Your task to perform on an android device: change your default location settings in chrome Image 0: 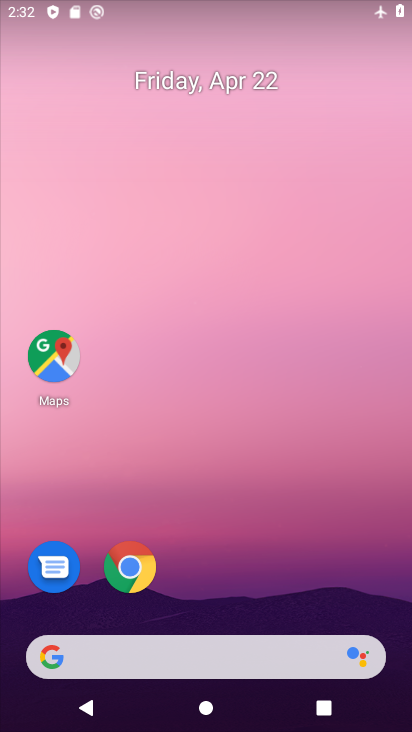
Step 0: click (236, 147)
Your task to perform on an android device: change your default location settings in chrome Image 1: 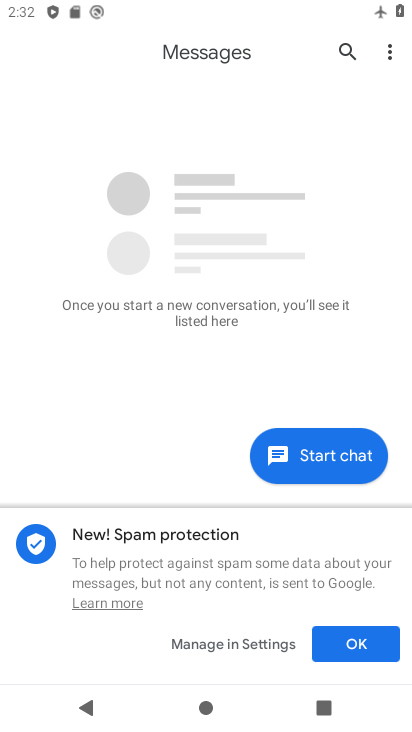
Step 1: press home button
Your task to perform on an android device: change your default location settings in chrome Image 2: 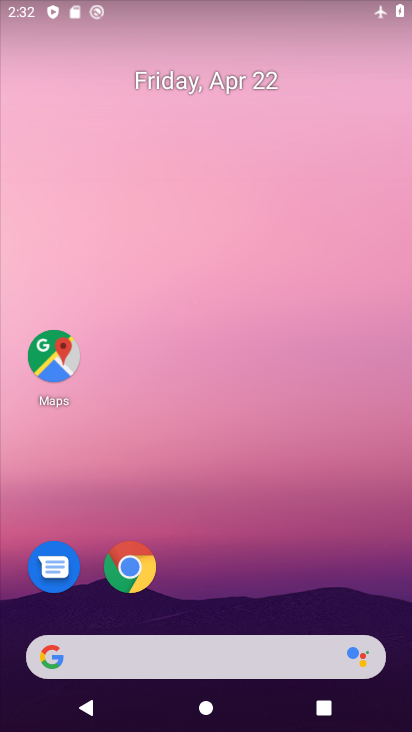
Step 2: drag from (284, 371) to (240, 88)
Your task to perform on an android device: change your default location settings in chrome Image 3: 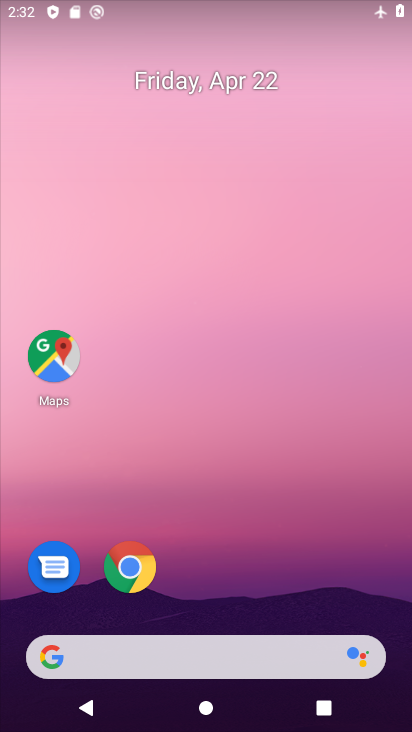
Step 3: drag from (229, 527) to (171, 354)
Your task to perform on an android device: change your default location settings in chrome Image 4: 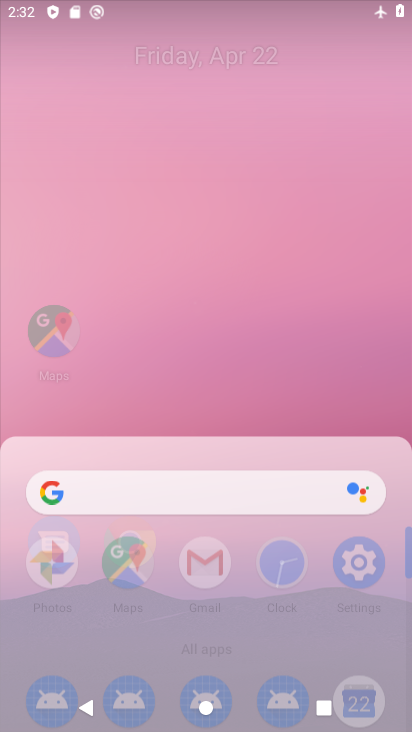
Step 4: drag from (200, 477) to (158, 298)
Your task to perform on an android device: change your default location settings in chrome Image 5: 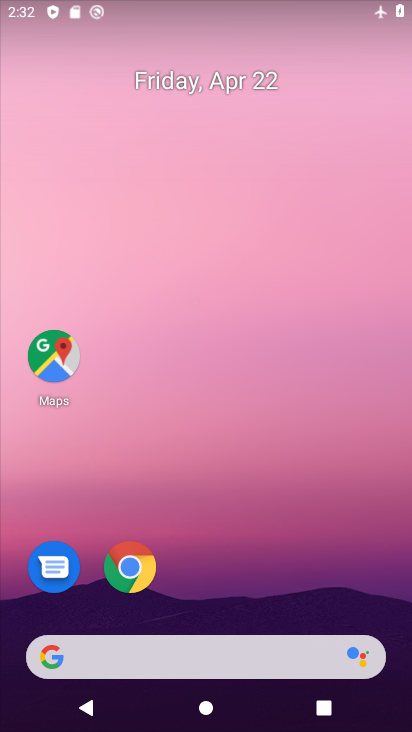
Step 5: drag from (218, 485) to (195, 295)
Your task to perform on an android device: change your default location settings in chrome Image 6: 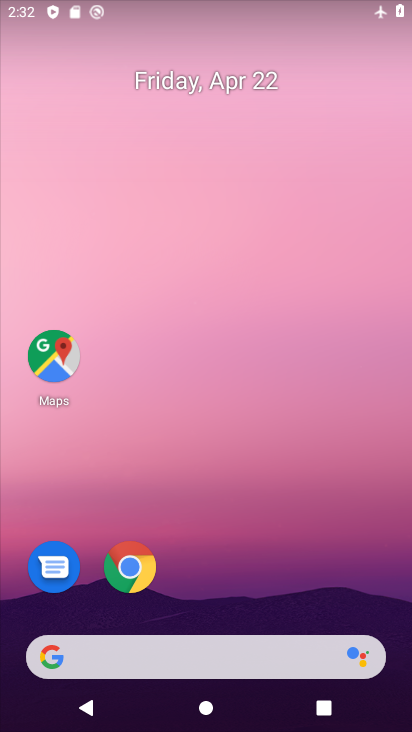
Step 6: drag from (234, 459) to (190, 244)
Your task to perform on an android device: change your default location settings in chrome Image 7: 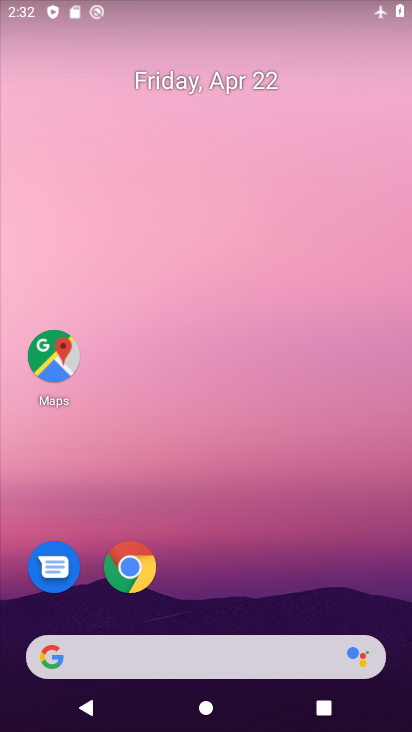
Step 7: drag from (209, 546) to (186, 145)
Your task to perform on an android device: change your default location settings in chrome Image 8: 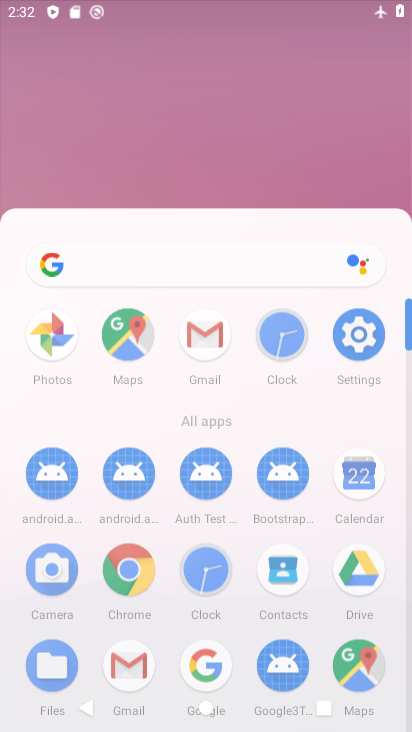
Step 8: drag from (214, 590) to (144, 142)
Your task to perform on an android device: change your default location settings in chrome Image 9: 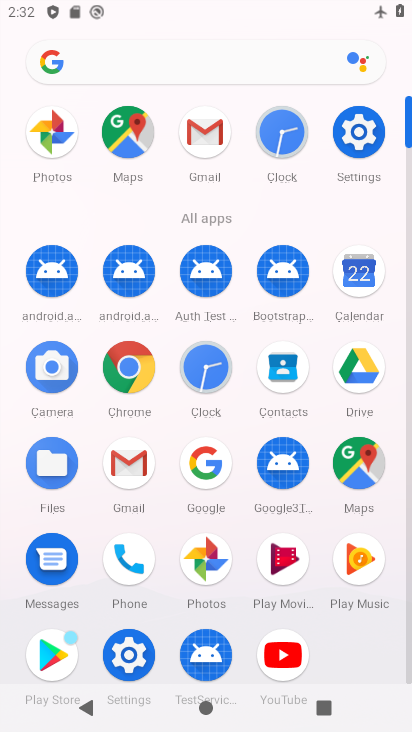
Step 9: drag from (198, 578) to (138, 153)
Your task to perform on an android device: change your default location settings in chrome Image 10: 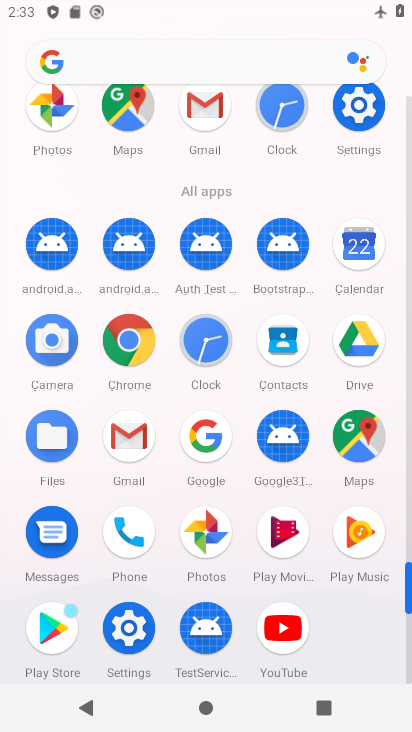
Step 10: click (361, 114)
Your task to perform on an android device: change your default location settings in chrome Image 11: 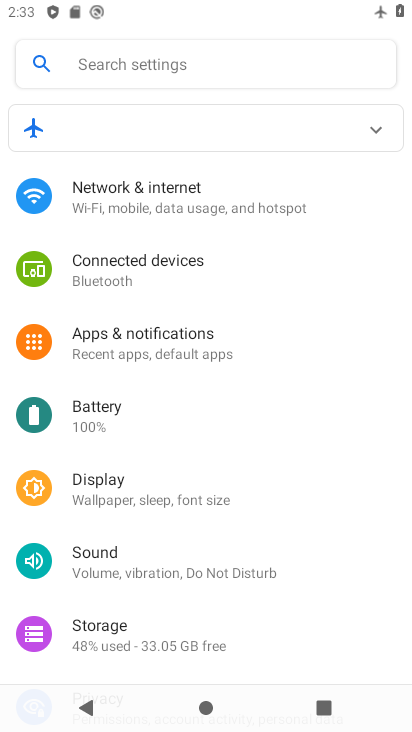
Step 11: click (361, 114)
Your task to perform on an android device: change your default location settings in chrome Image 12: 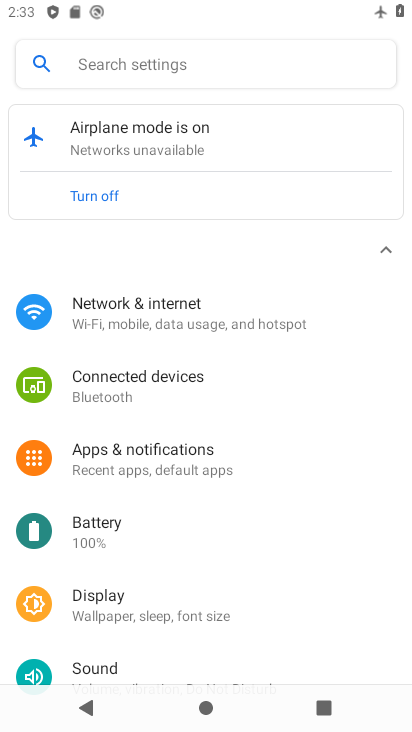
Step 12: press home button
Your task to perform on an android device: change your default location settings in chrome Image 13: 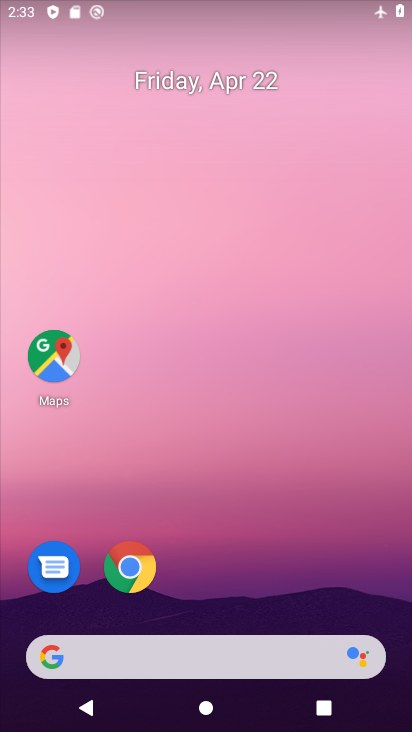
Step 13: drag from (266, 557) to (242, 21)
Your task to perform on an android device: change your default location settings in chrome Image 14: 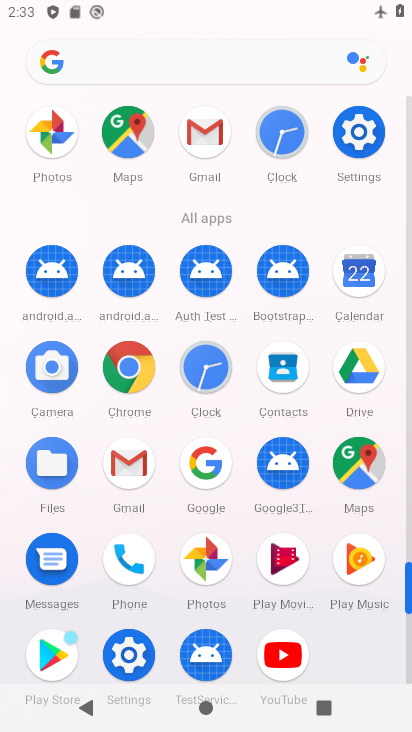
Step 14: click (211, 469)
Your task to perform on an android device: change your default location settings in chrome Image 15: 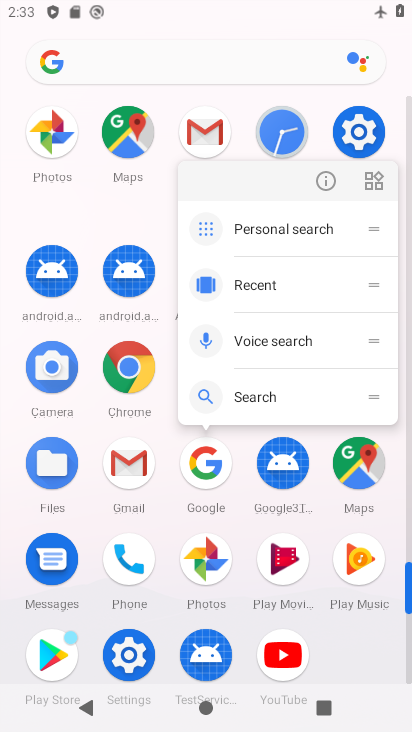
Step 15: click (210, 470)
Your task to perform on an android device: change your default location settings in chrome Image 16: 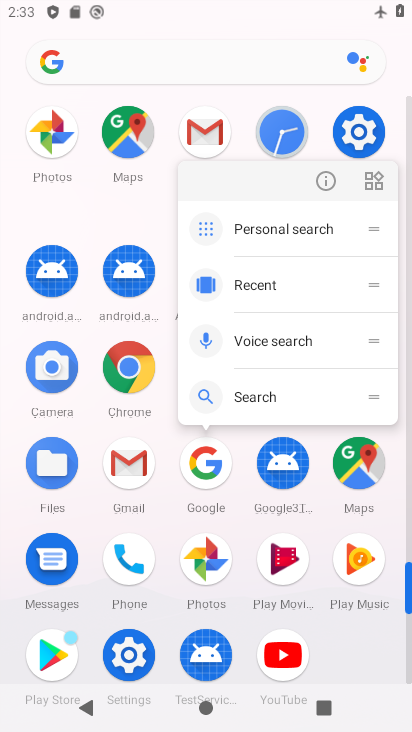
Step 16: click (125, 370)
Your task to perform on an android device: change your default location settings in chrome Image 17: 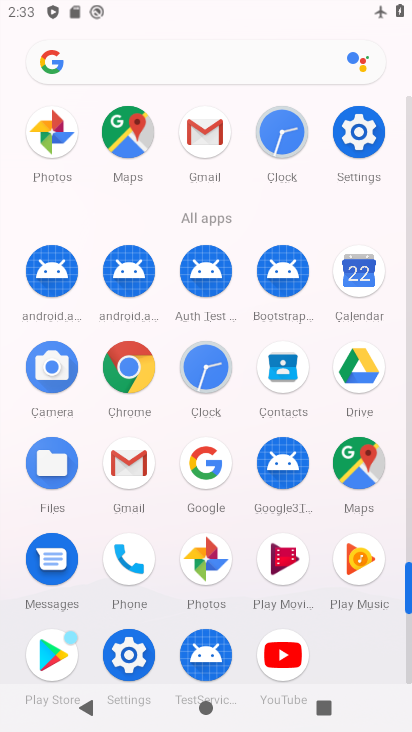
Step 17: click (125, 370)
Your task to perform on an android device: change your default location settings in chrome Image 18: 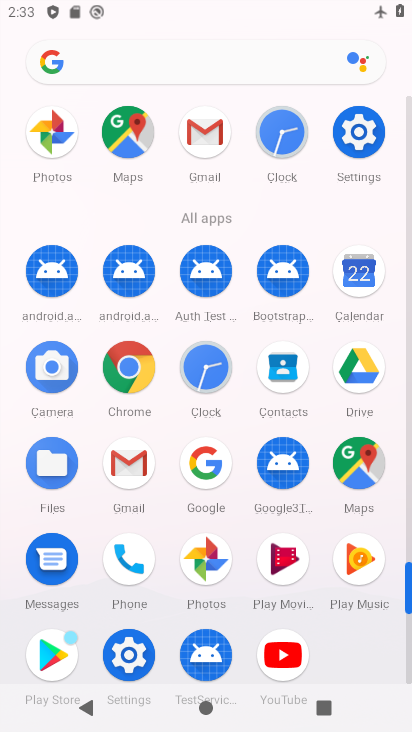
Step 18: click (125, 370)
Your task to perform on an android device: change your default location settings in chrome Image 19: 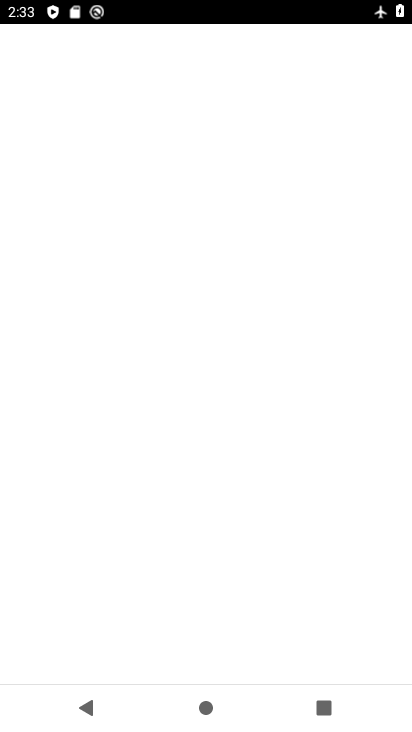
Step 19: click (125, 370)
Your task to perform on an android device: change your default location settings in chrome Image 20: 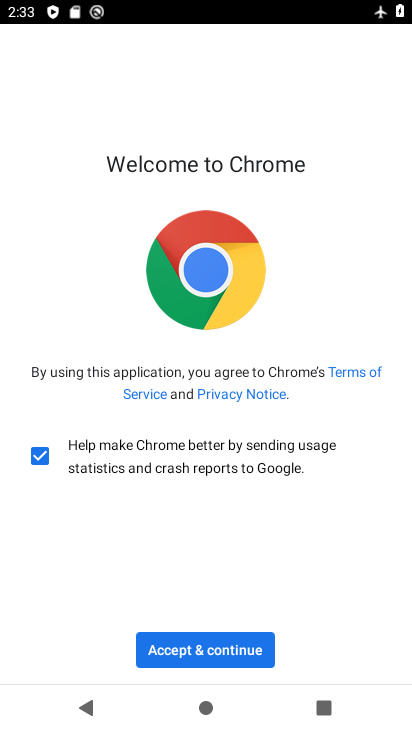
Step 20: click (202, 656)
Your task to perform on an android device: change your default location settings in chrome Image 21: 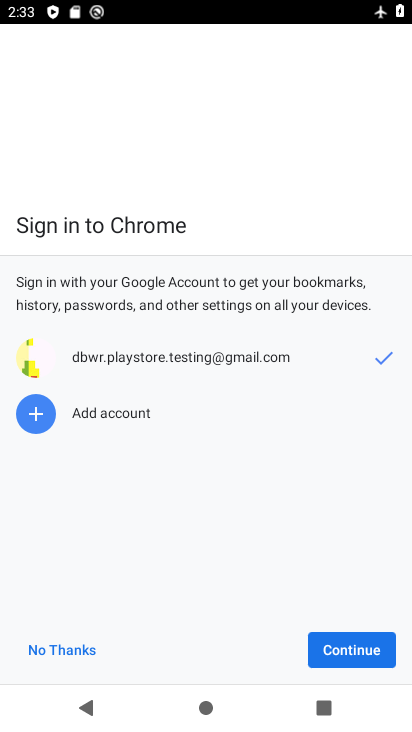
Step 21: click (205, 648)
Your task to perform on an android device: change your default location settings in chrome Image 22: 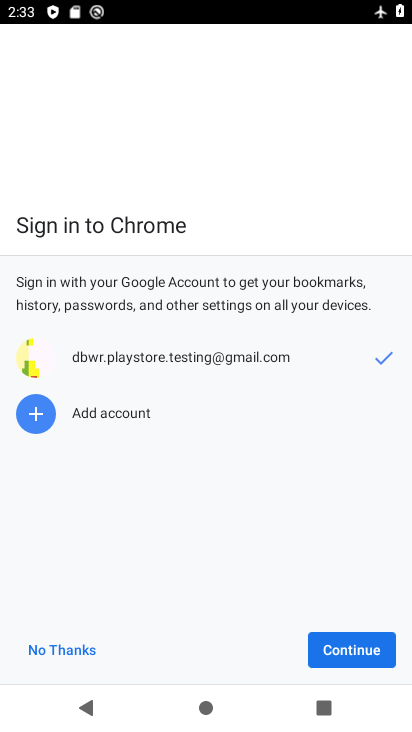
Step 22: click (206, 647)
Your task to perform on an android device: change your default location settings in chrome Image 23: 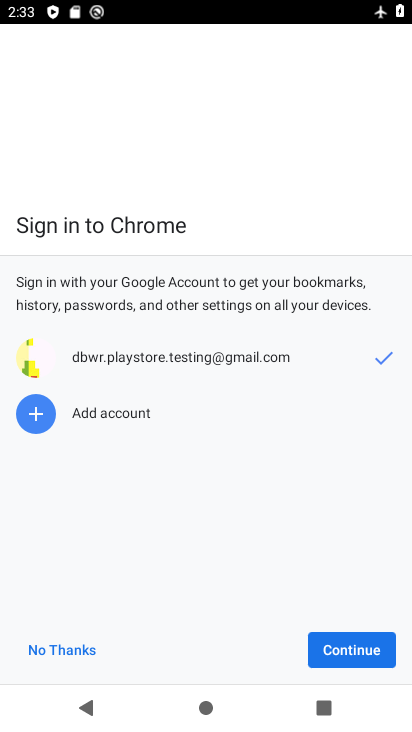
Step 23: click (348, 647)
Your task to perform on an android device: change your default location settings in chrome Image 24: 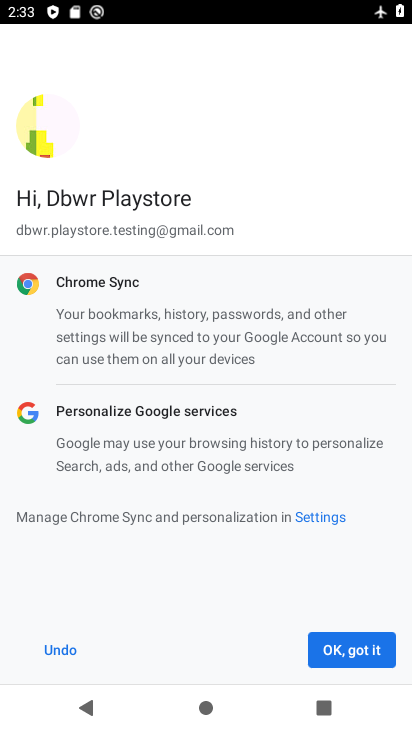
Step 24: click (349, 646)
Your task to perform on an android device: change your default location settings in chrome Image 25: 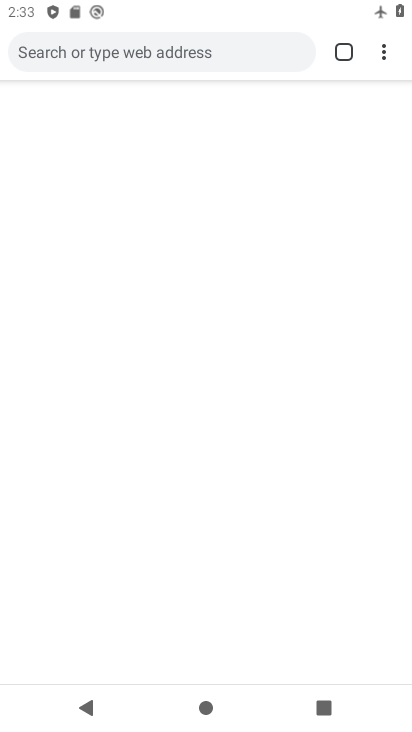
Step 25: click (349, 646)
Your task to perform on an android device: change your default location settings in chrome Image 26: 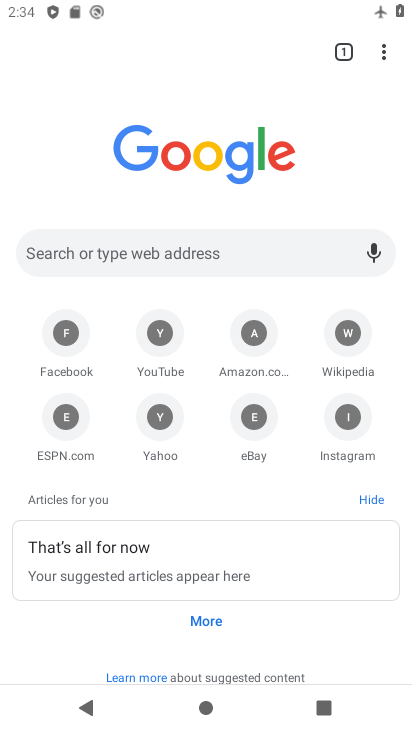
Step 26: drag from (379, 47) to (212, 438)
Your task to perform on an android device: change your default location settings in chrome Image 27: 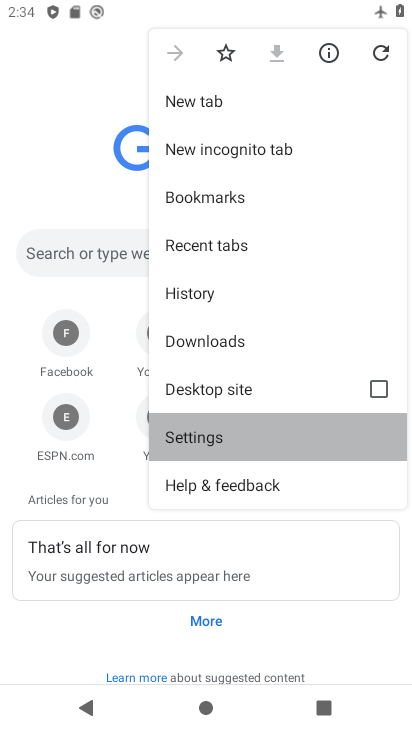
Step 27: click (212, 438)
Your task to perform on an android device: change your default location settings in chrome Image 28: 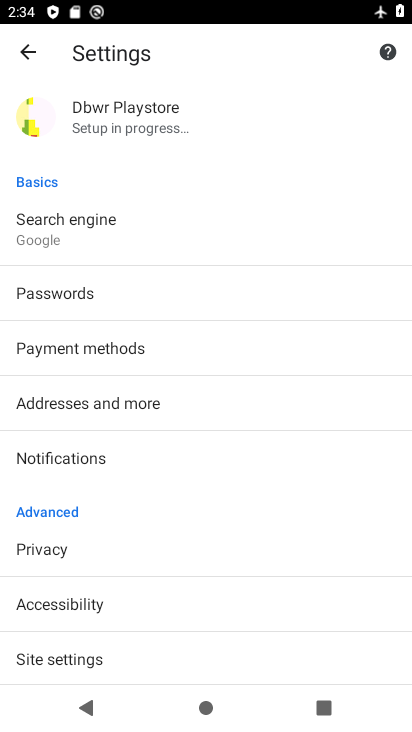
Step 28: drag from (82, 603) to (52, 218)
Your task to perform on an android device: change your default location settings in chrome Image 29: 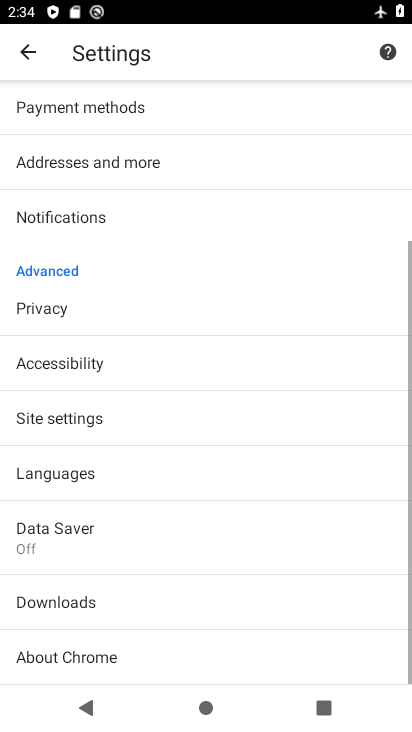
Step 29: click (150, 208)
Your task to perform on an android device: change your default location settings in chrome Image 30: 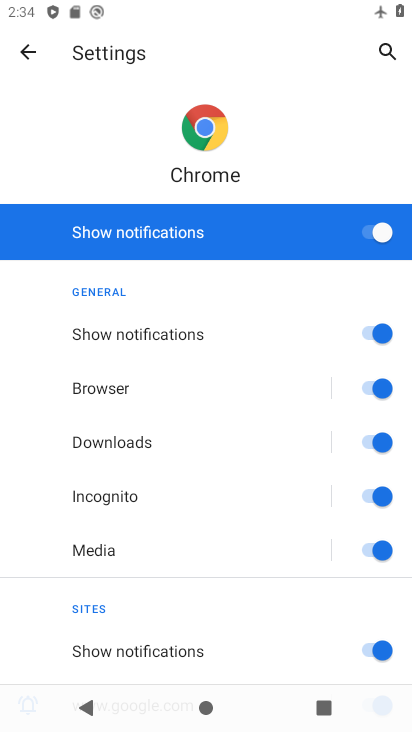
Step 30: click (24, 51)
Your task to perform on an android device: change your default location settings in chrome Image 31: 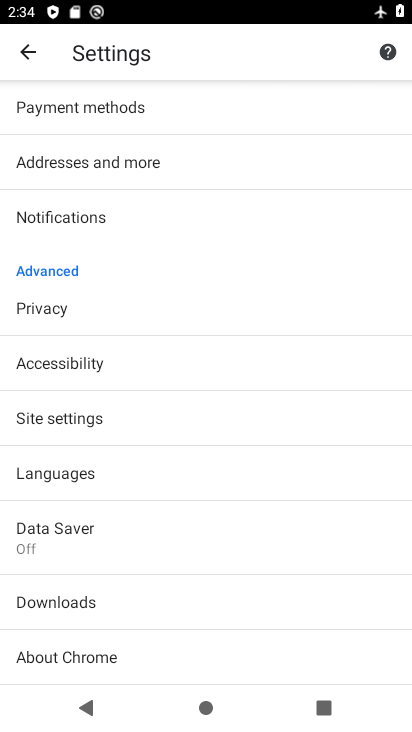
Step 31: click (44, 421)
Your task to perform on an android device: change your default location settings in chrome Image 32: 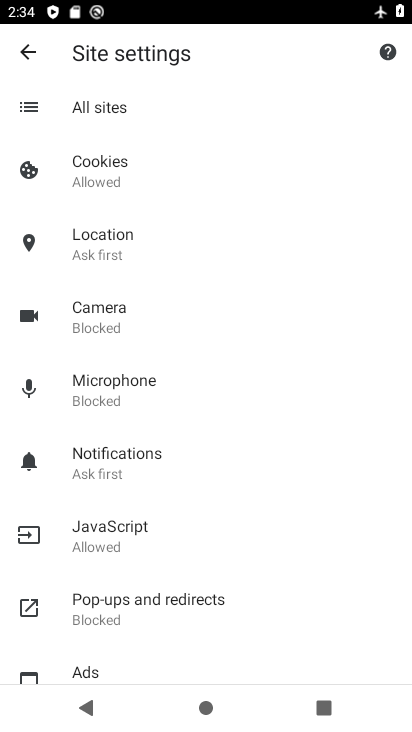
Step 32: click (101, 235)
Your task to perform on an android device: change your default location settings in chrome Image 33: 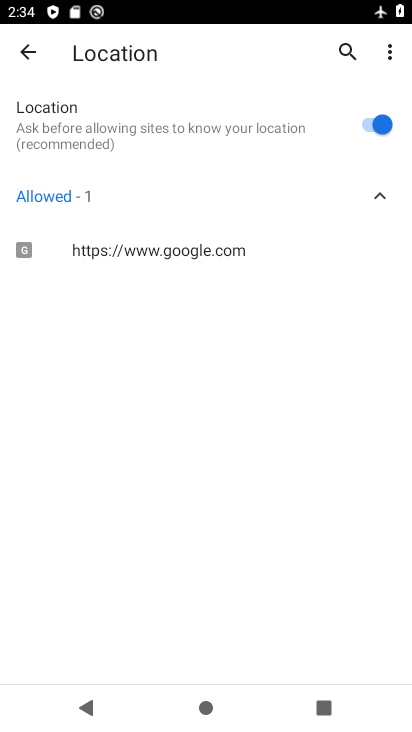
Step 33: click (374, 115)
Your task to perform on an android device: change your default location settings in chrome Image 34: 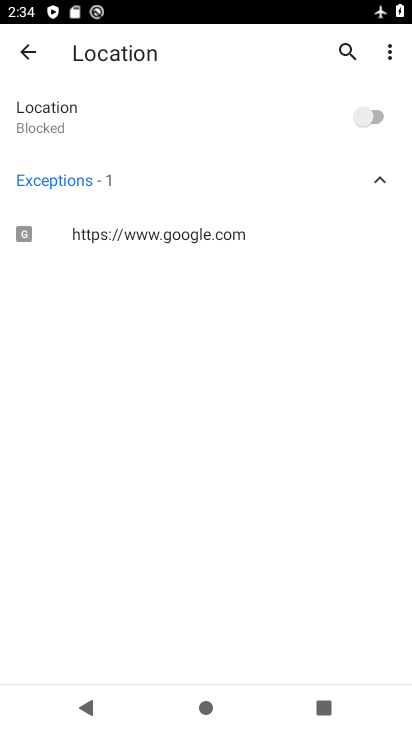
Step 34: task complete